Your task to perform on an android device: Open settings Image 0: 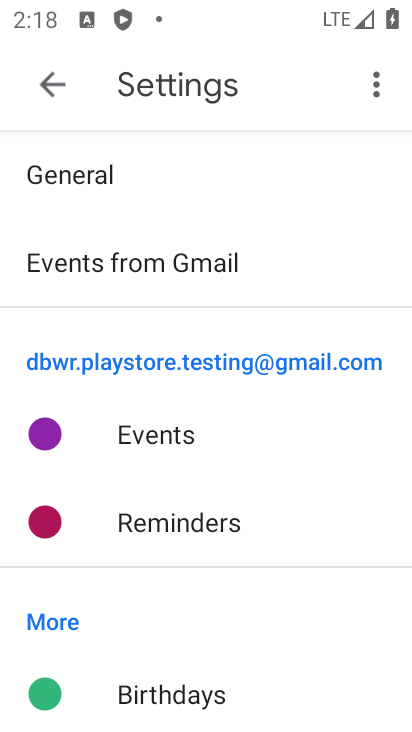
Step 0: press home button
Your task to perform on an android device: Open settings Image 1: 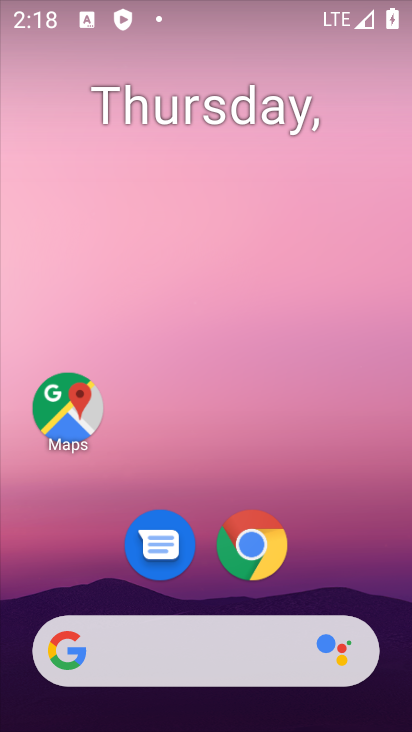
Step 1: drag from (49, 644) to (144, 149)
Your task to perform on an android device: Open settings Image 2: 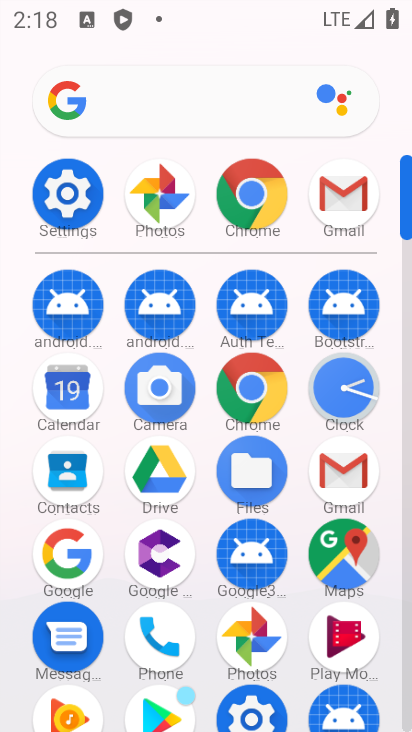
Step 2: click (89, 174)
Your task to perform on an android device: Open settings Image 3: 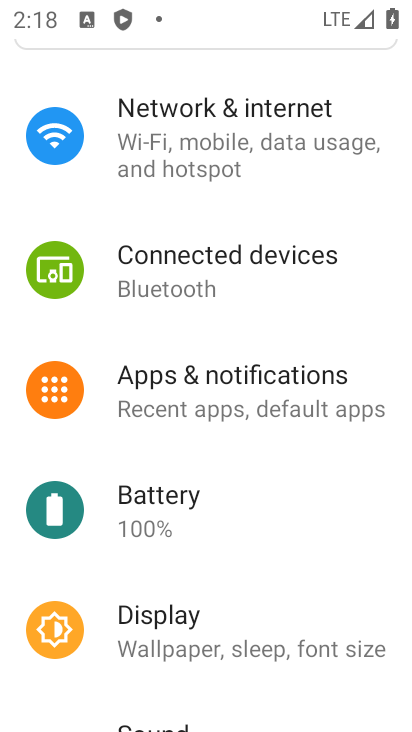
Step 3: task complete